Your task to perform on an android device: set the stopwatch Image 0: 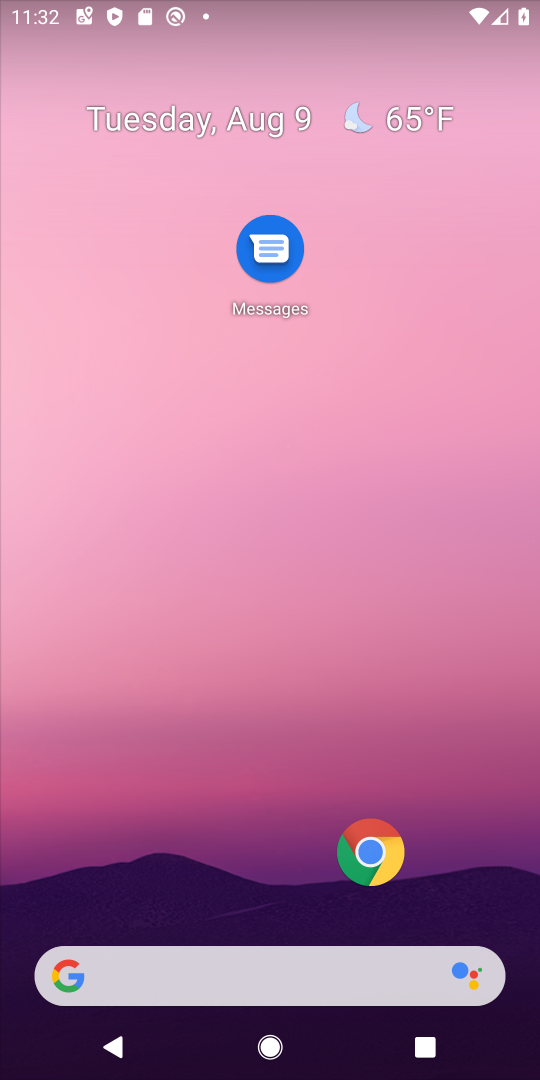
Step 0: drag from (255, 876) to (176, 84)
Your task to perform on an android device: set the stopwatch Image 1: 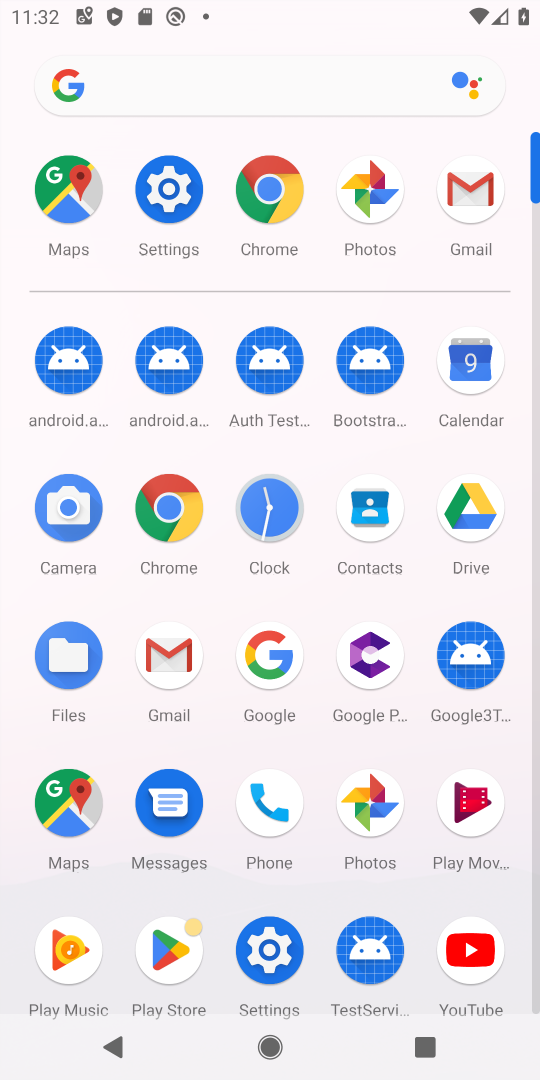
Step 1: click (267, 508)
Your task to perform on an android device: set the stopwatch Image 2: 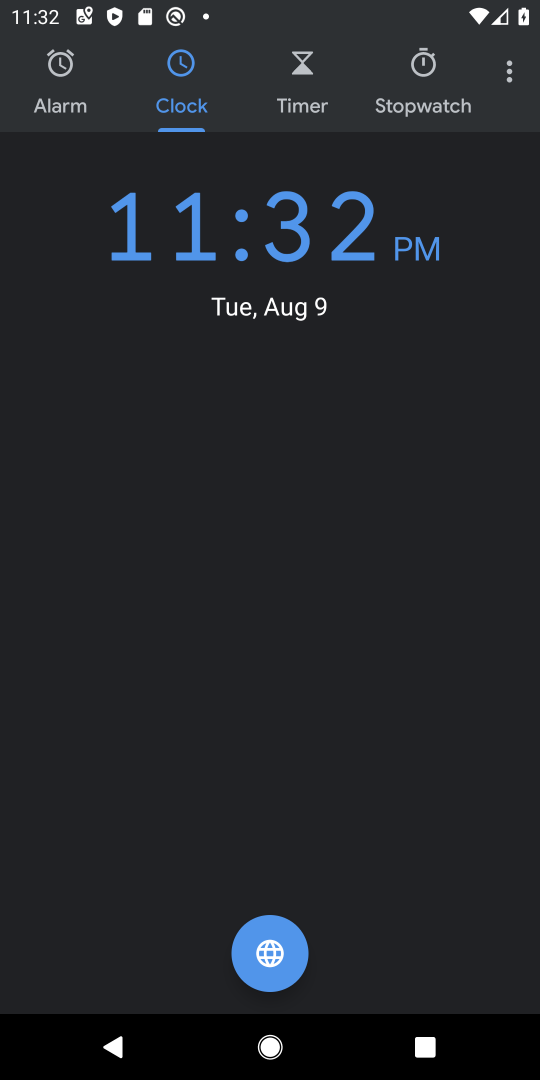
Step 2: click (417, 75)
Your task to perform on an android device: set the stopwatch Image 3: 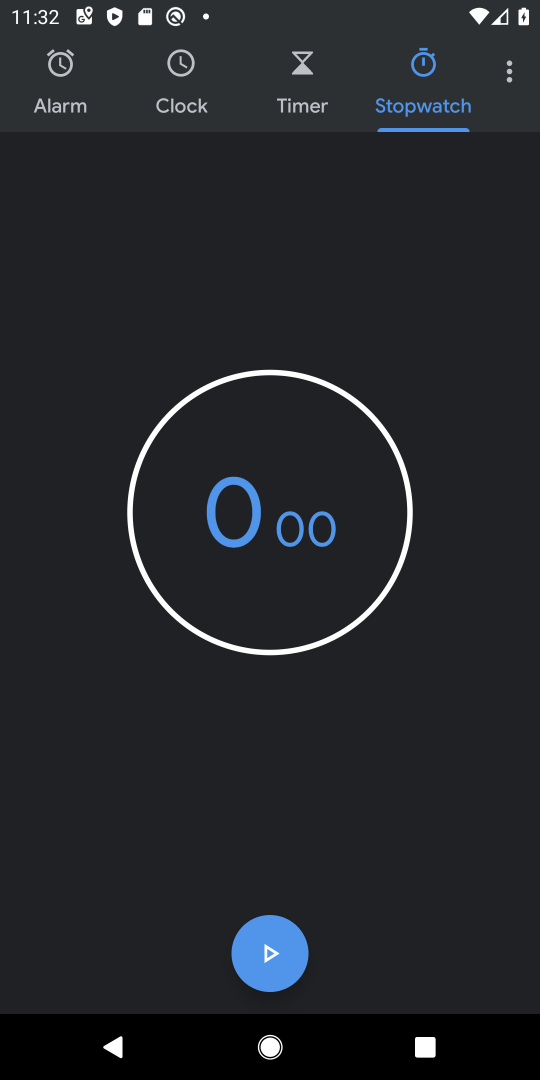
Step 3: click (282, 986)
Your task to perform on an android device: set the stopwatch Image 4: 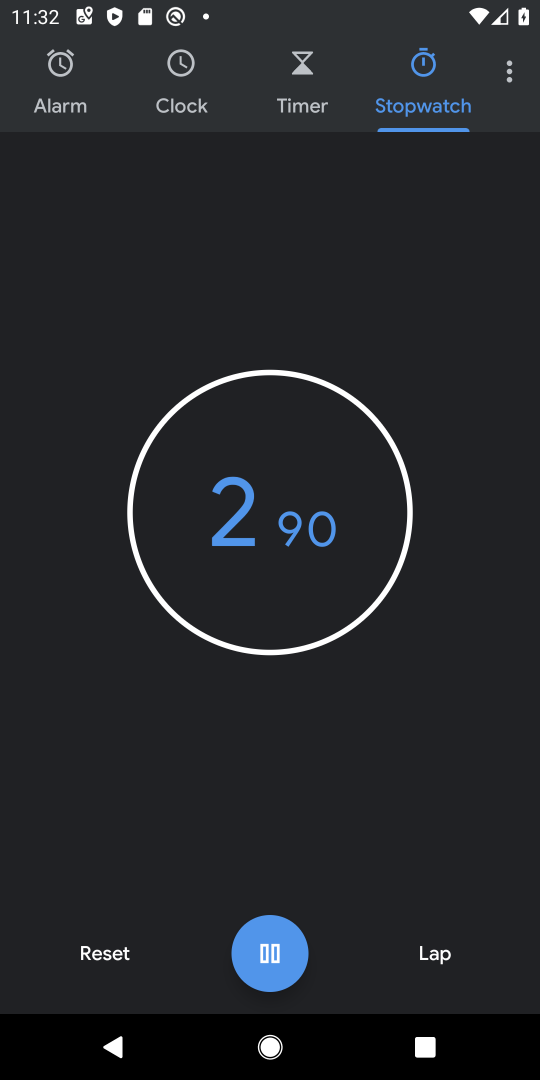
Step 4: task complete